Your task to perform on an android device: create a new album in the google photos Image 0: 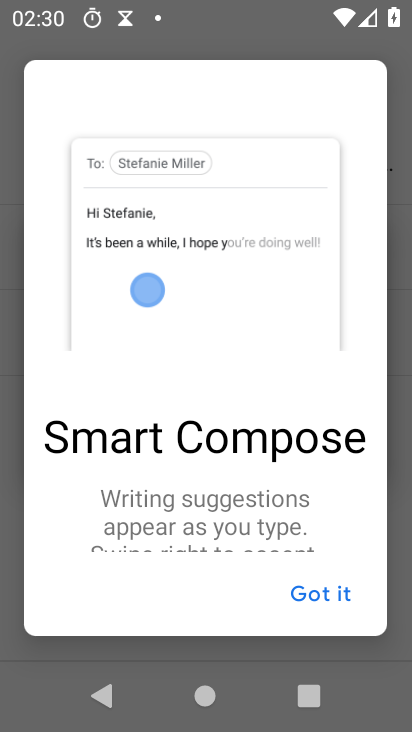
Step 0: press home button
Your task to perform on an android device: create a new album in the google photos Image 1: 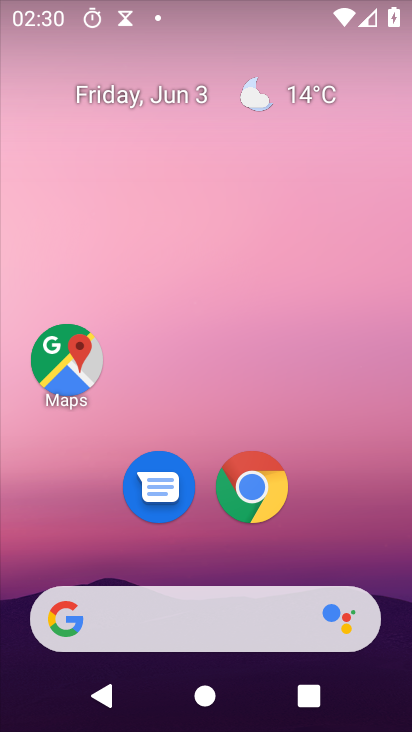
Step 1: drag from (322, 522) to (218, 17)
Your task to perform on an android device: create a new album in the google photos Image 2: 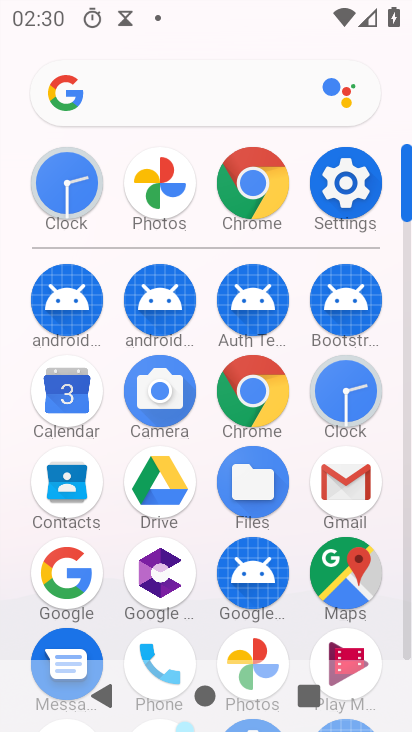
Step 2: click (242, 642)
Your task to perform on an android device: create a new album in the google photos Image 3: 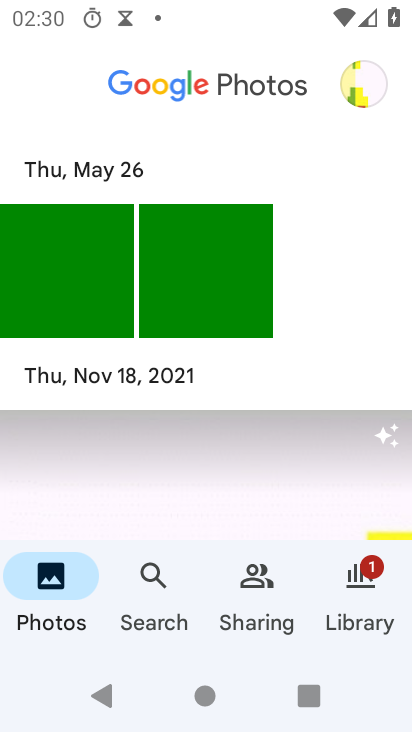
Step 3: click (349, 596)
Your task to perform on an android device: create a new album in the google photos Image 4: 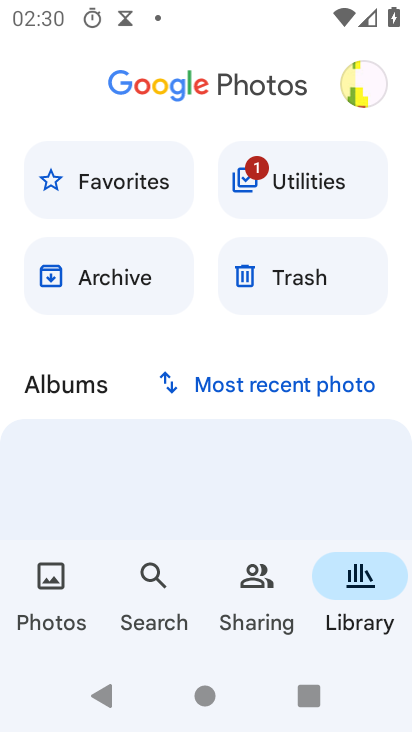
Step 4: drag from (135, 440) to (131, 136)
Your task to perform on an android device: create a new album in the google photos Image 5: 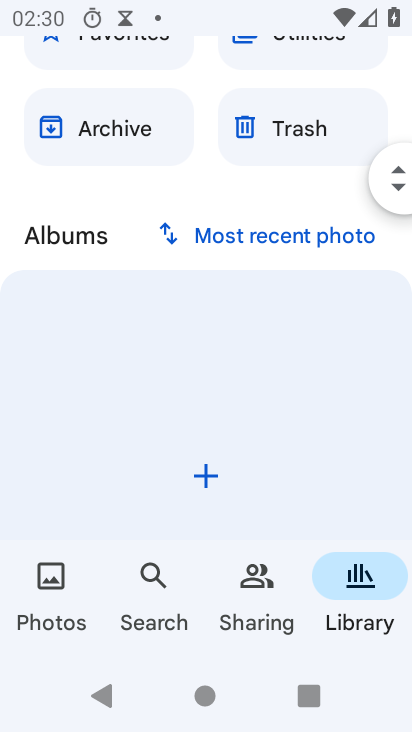
Step 5: click (171, 423)
Your task to perform on an android device: create a new album in the google photos Image 6: 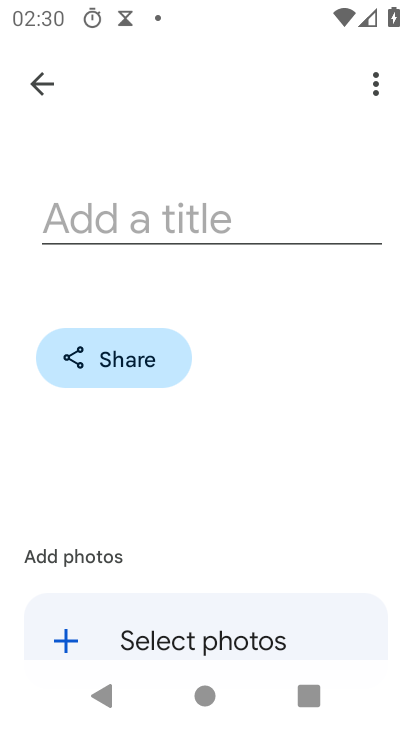
Step 6: click (232, 226)
Your task to perform on an android device: create a new album in the google photos Image 7: 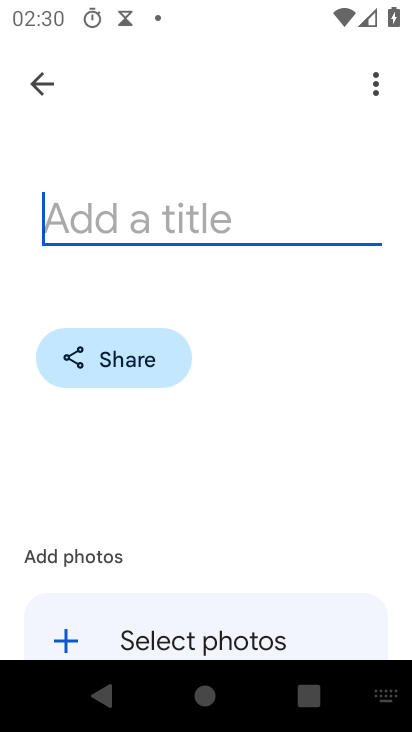
Step 7: type "gsfgs"
Your task to perform on an android device: create a new album in the google photos Image 8: 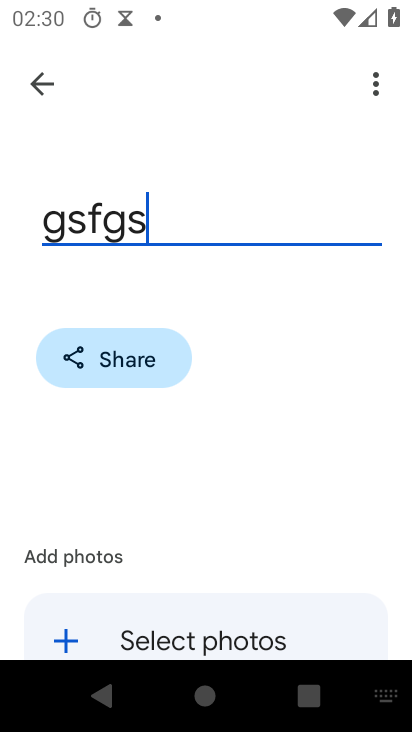
Step 8: type ""
Your task to perform on an android device: create a new album in the google photos Image 9: 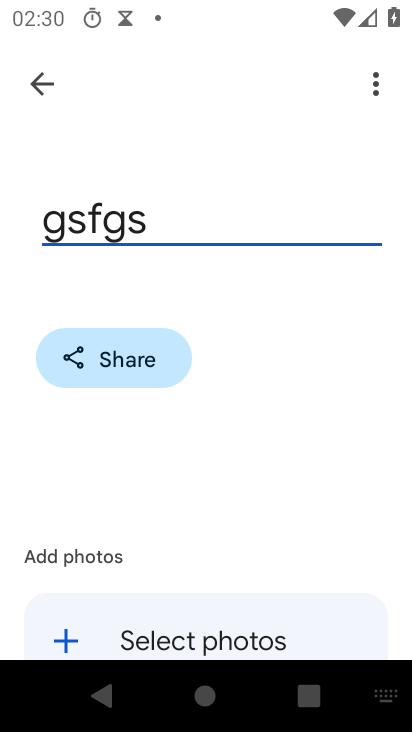
Step 9: click (222, 630)
Your task to perform on an android device: create a new album in the google photos Image 10: 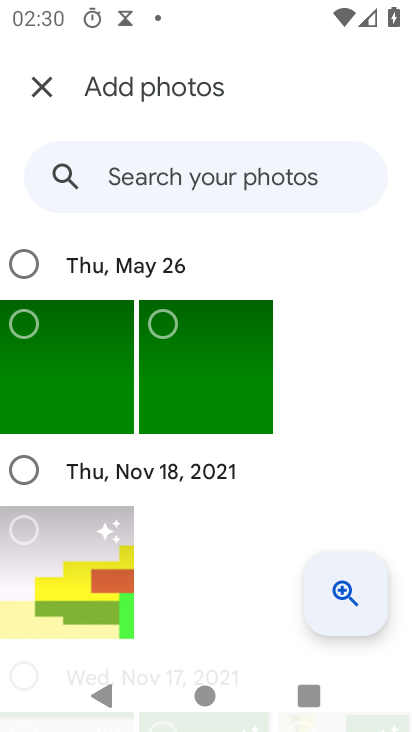
Step 10: click (29, 359)
Your task to perform on an android device: create a new album in the google photos Image 11: 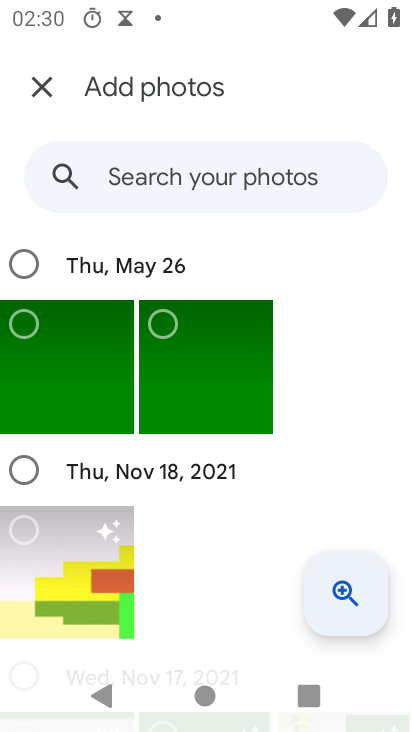
Step 11: click (89, 584)
Your task to perform on an android device: create a new album in the google photos Image 12: 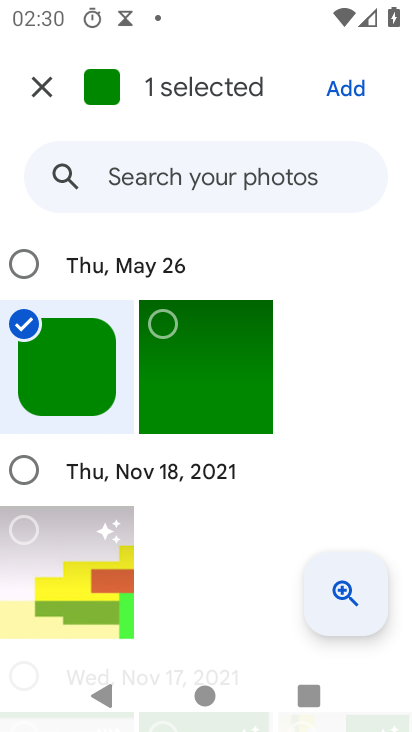
Step 12: click (344, 85)
Your task to perform on an android device: create a new album in the google photos Image 13: 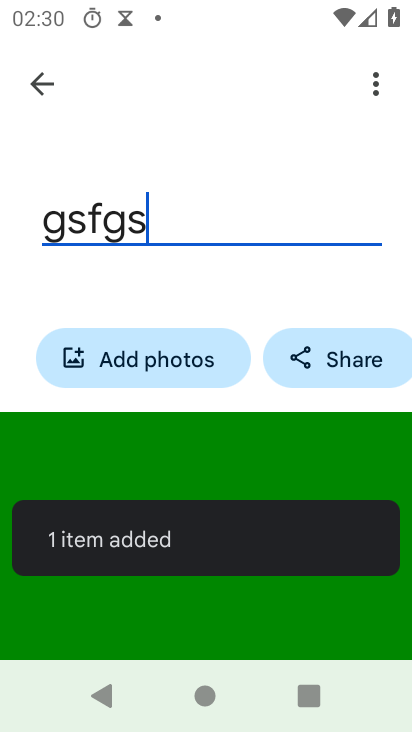
Step 13: task complete